Your task to perform on an android device: install app "Spotify: Music and Podcasts" Image 0: 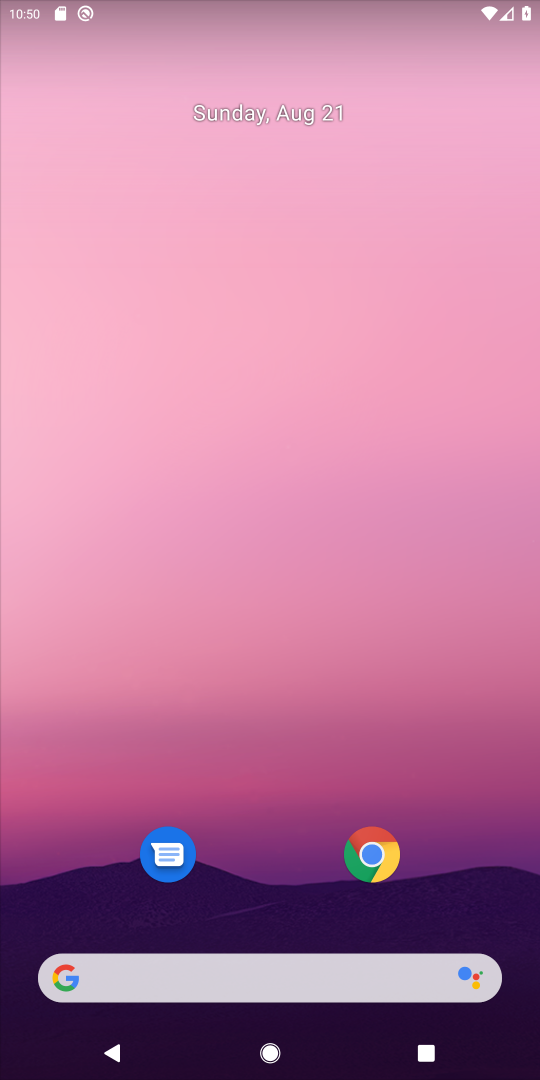
Step 0: drag from (233, 939) to (211, 59)
Your task to perform on an android device: install app "Spotify: Music and Podcasts" Image 1: 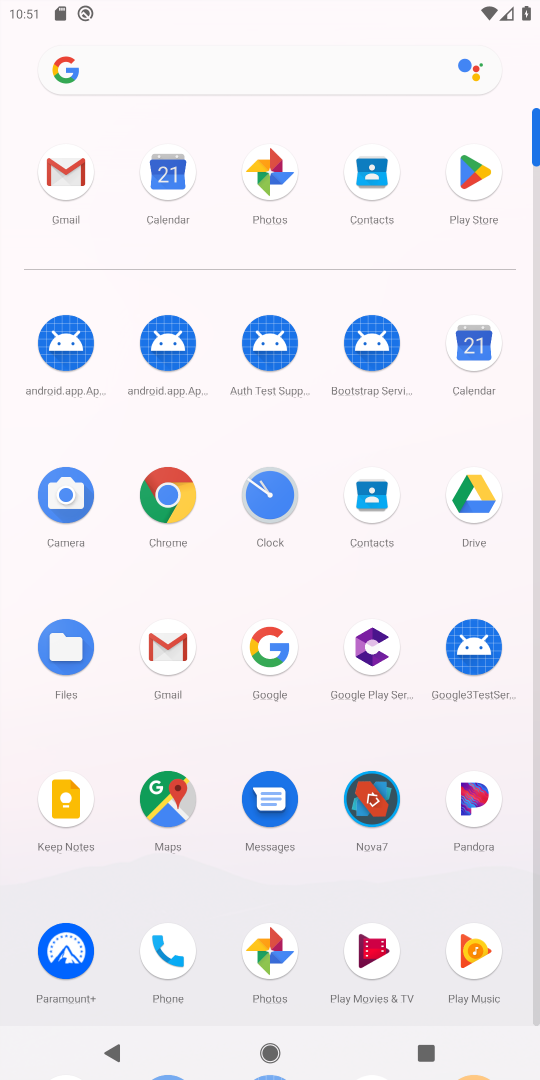
Step 1: click (485, 198)
Your task to perform on an android device: install app "Spotify: Music and Podcasts" Image 2: 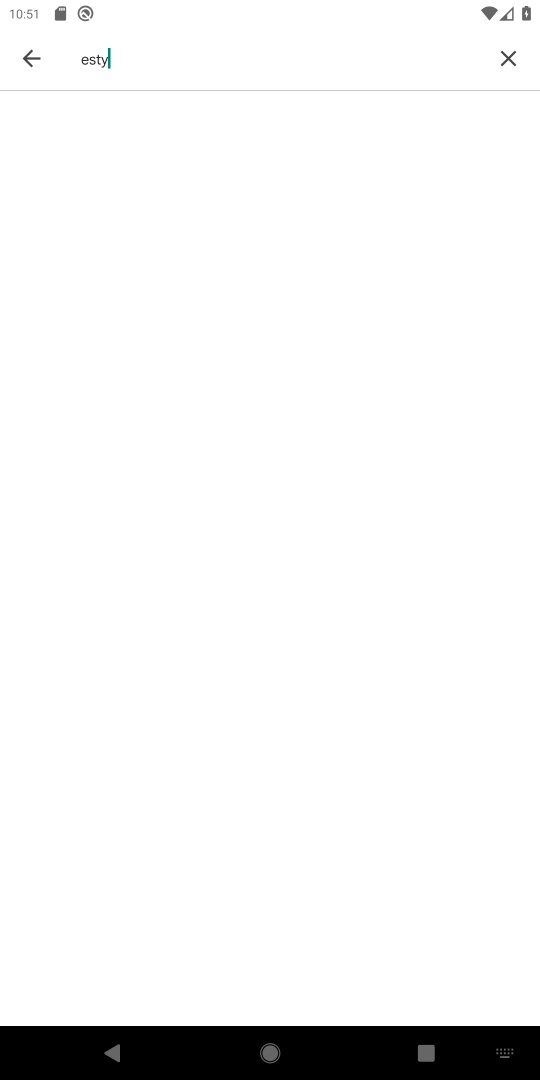
Step 2: task complete